Your task to perform on an android device: Open Google Chrome Image 0: 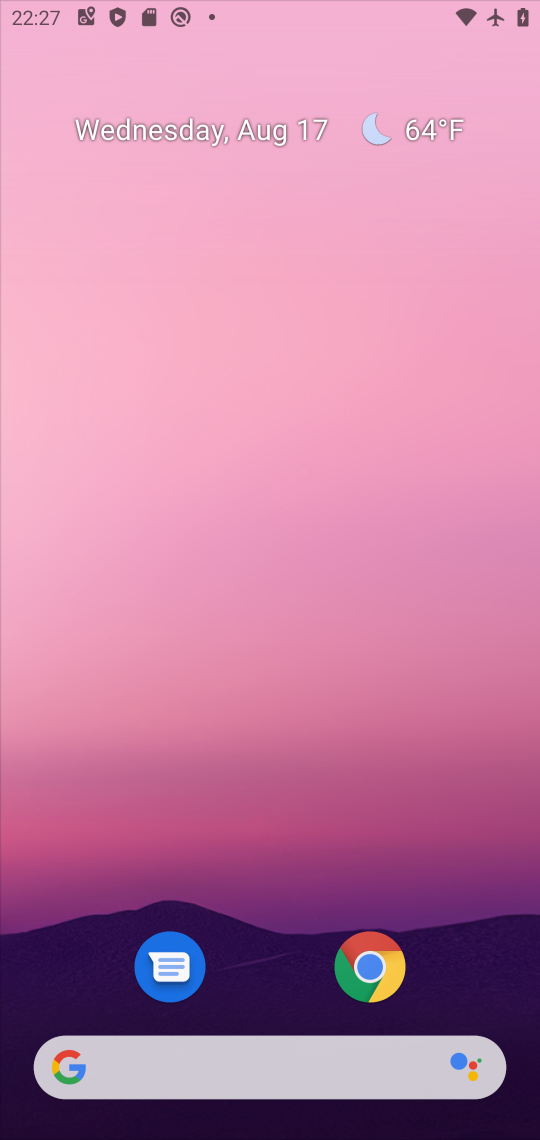
Step 0: press home button
Your task to perform on an android device: Open Google Chrome Image 1: 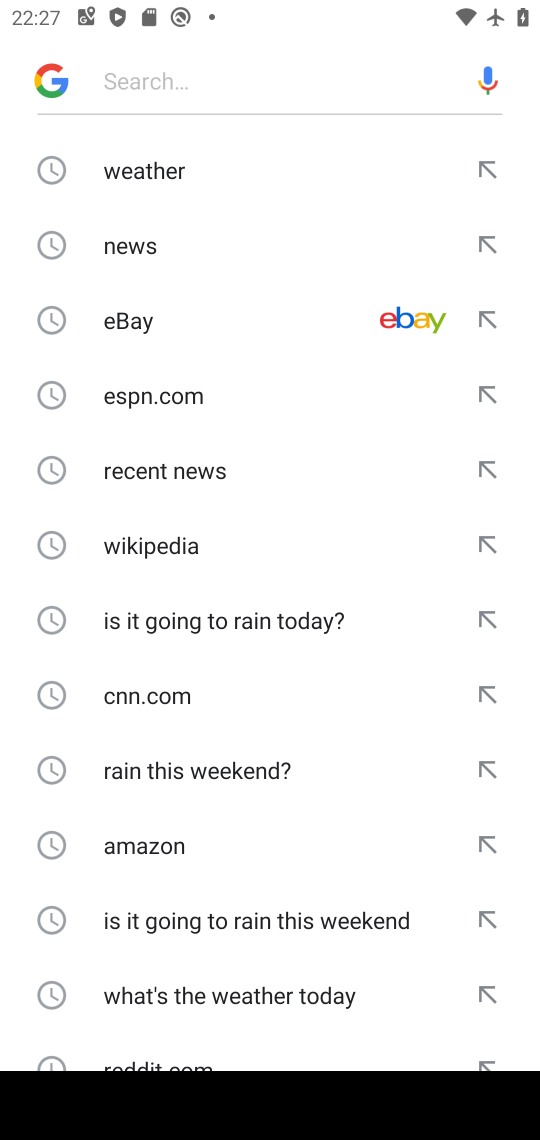
Step 1: click (258, 207)
Your task to perform on an android device: Open Google Chrome Image 2: 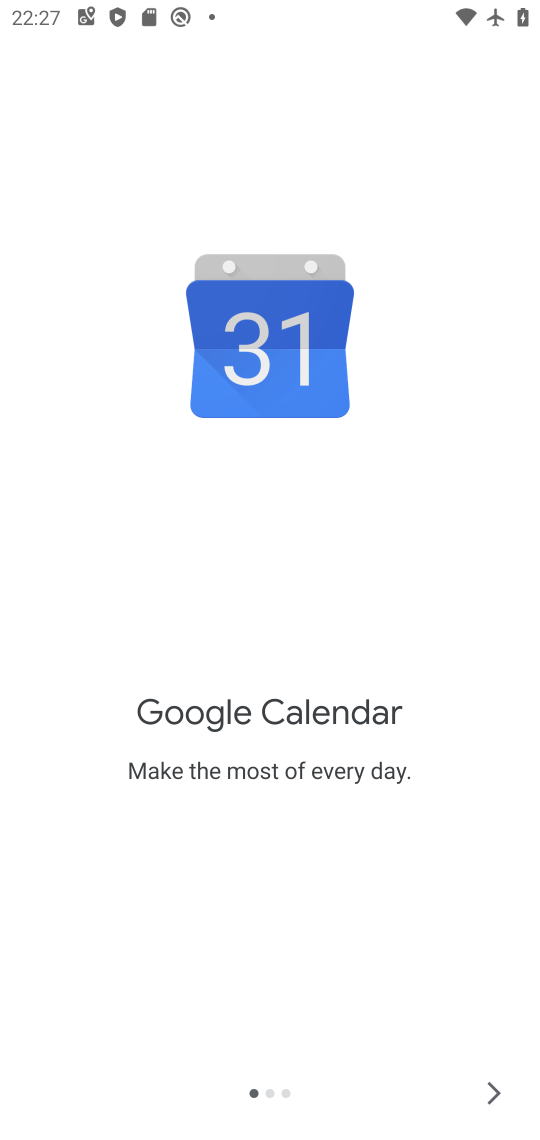
Step 2: press home button
Your task to perform on an android device: Open Google Chrome Image 3: 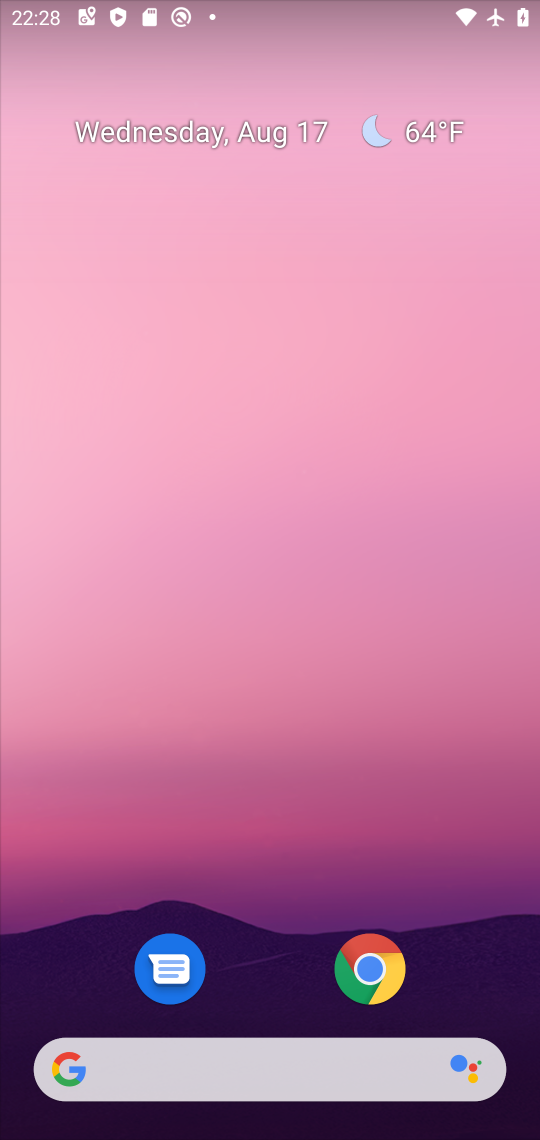
Step 3: click (371, 974)
Your task to perform on an android device: Open Google Chrome Image 4: 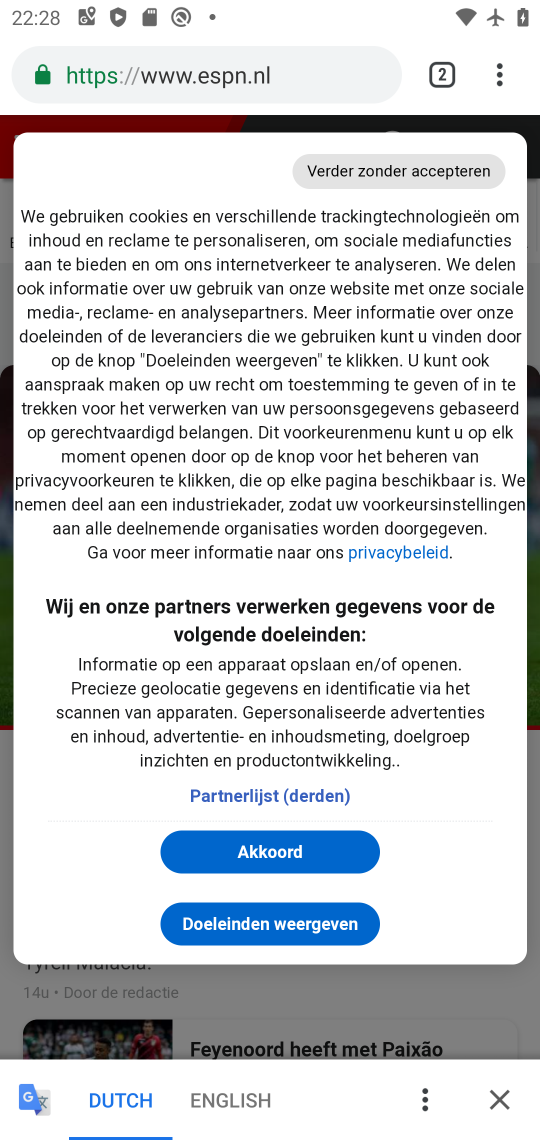
Step 4: task complete